Your task to perform on an android device: turn off improve location accuracy Image 0: 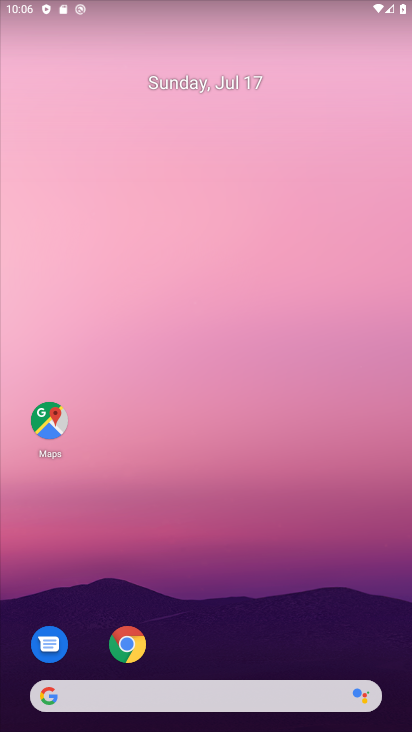
Step 0: drag from (295, 369) to (292, 77)
Your task to perform on an android device: turn off improve location accuracy Image 1: 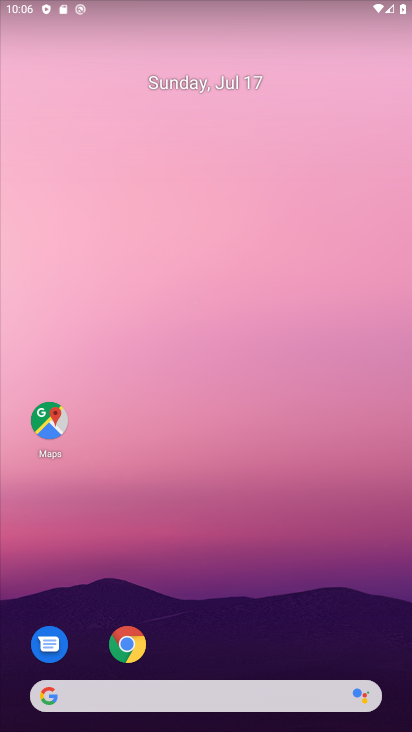
Step 1: drag from (241, 576) to (298, 6)
Your task to perform on an android device: turn off improve location accuracy Image 2: 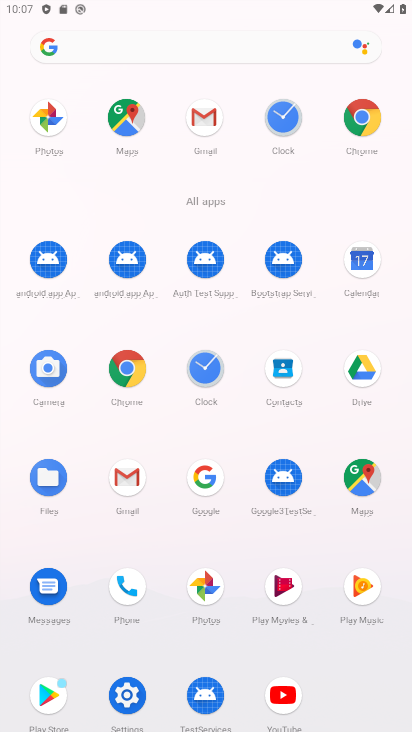
Step 2: click (119, 697)
Your task to perform on an android device: turn off improve location accuracy Image 3: 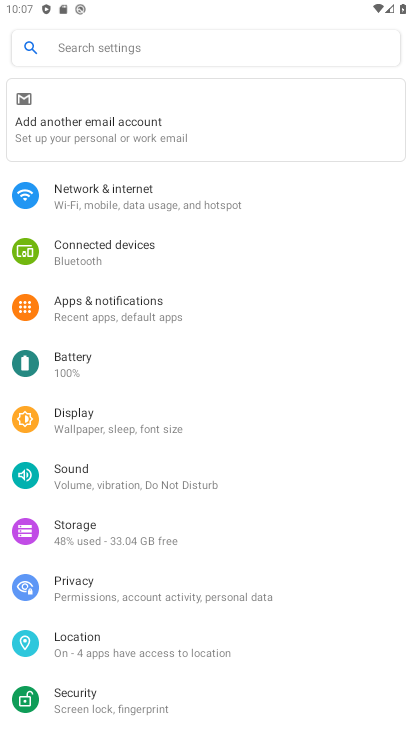
Step 3: click (79, 636)
Your task to perform on an android device: turn off improve location accuracy Image 4: 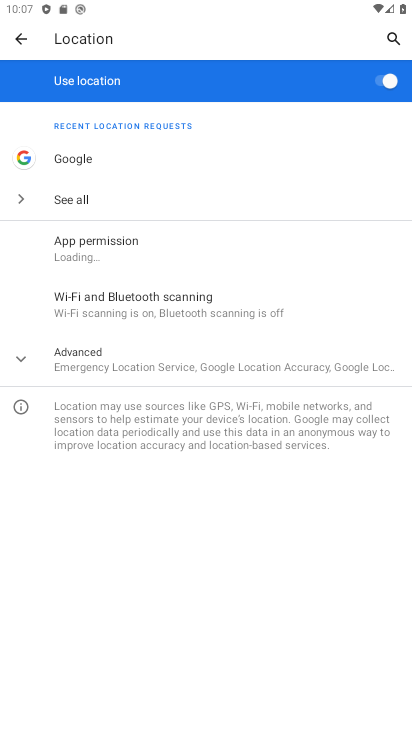
Step 4: click (24, 350)
Your task to perform on an android device: turn off improve location accuracy Image 5: 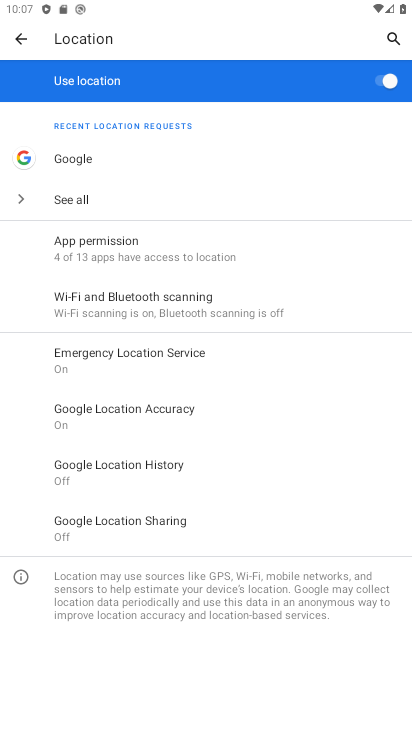
Step 5: click (147, 411)
Your task to perform on an android device: turn off improve location accuracy Image 6: 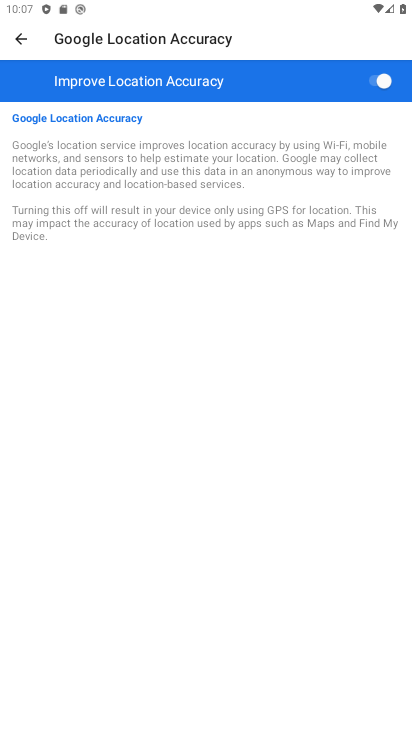
Step 6: click (386, 78)
Your task to perform on an android device: turn off improve location accuracy Image 7: 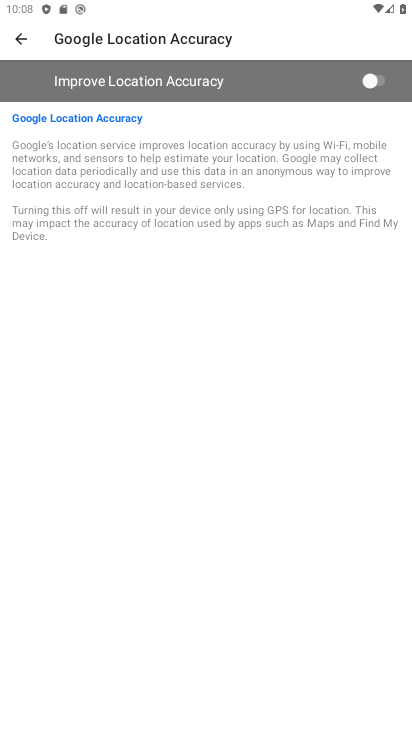
Step 7: task complete